Your task to perform on an android device: toggle javascript in the chrome app Image 0: 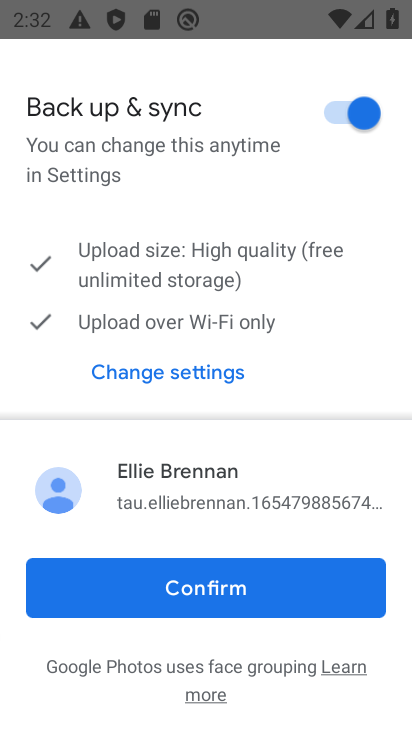
Step 0: click (119, 578)
Your task to perform on an android device: toggle javascript in the chrome app Image 1: 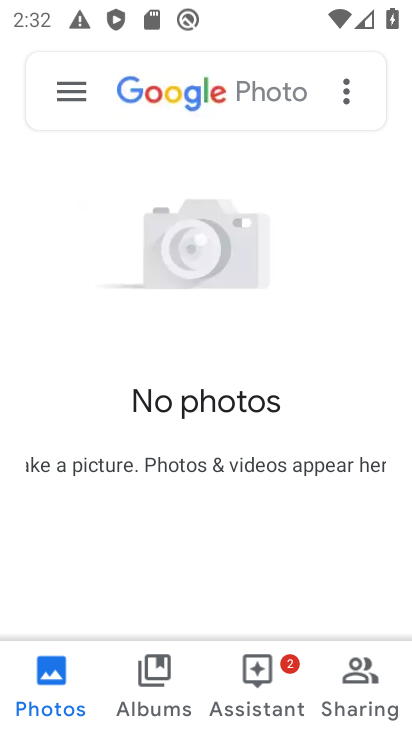
Step 1: click (74, 87)
Your task to perform on an android device: toggle javascript in the chrome app Image 2: 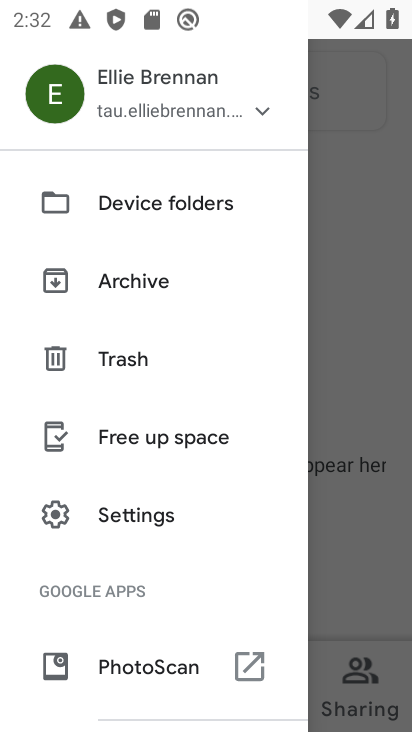
Step 2: click (93, 521)
Your task to perform on an android device: toggle javascript in the chrome app Image 3: 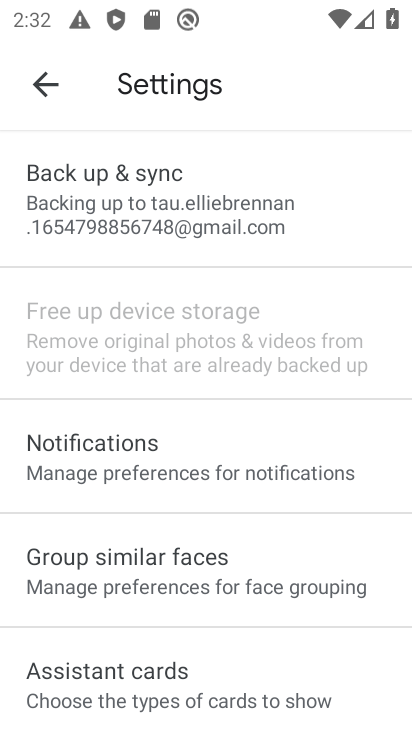
Step 3: task complete